Your task to perform on an android device: Open settings on Google Maps Image 0: 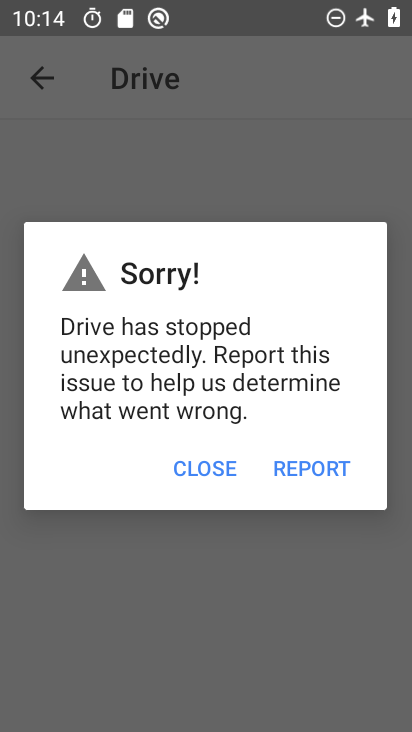
Step 0: press home button
Your task to perform on an android device: Open settings on Google Maps Image 1: 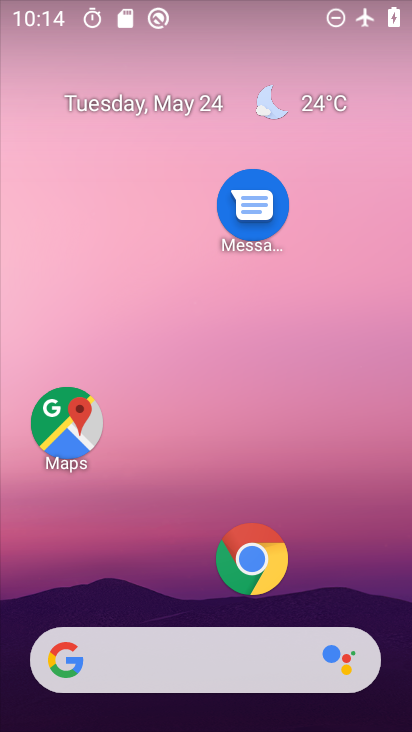
Step 1: click (67, 442)
Your task to perform on an android device: Open settings on Google Maps Image 2: 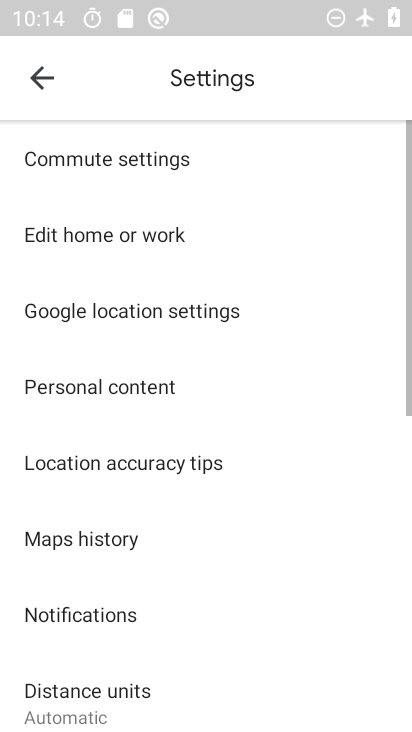
Step 2: task complete